Your task to perform on an android device: Open Google Image 0: 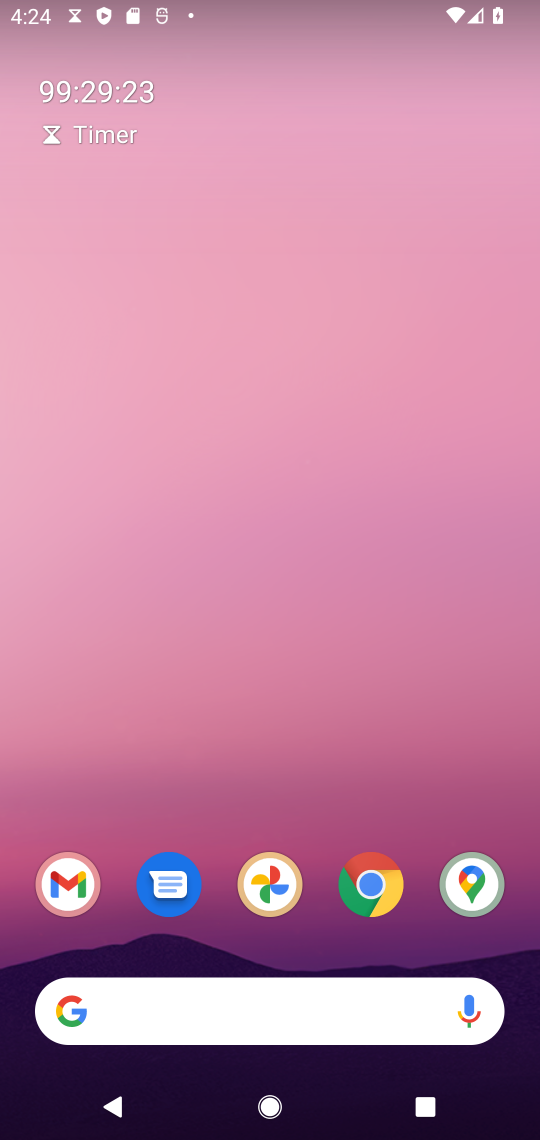
Step 0: drag from (159, 921) to (208, 225)
Your task to perform on an android device: Open Google Image 1: 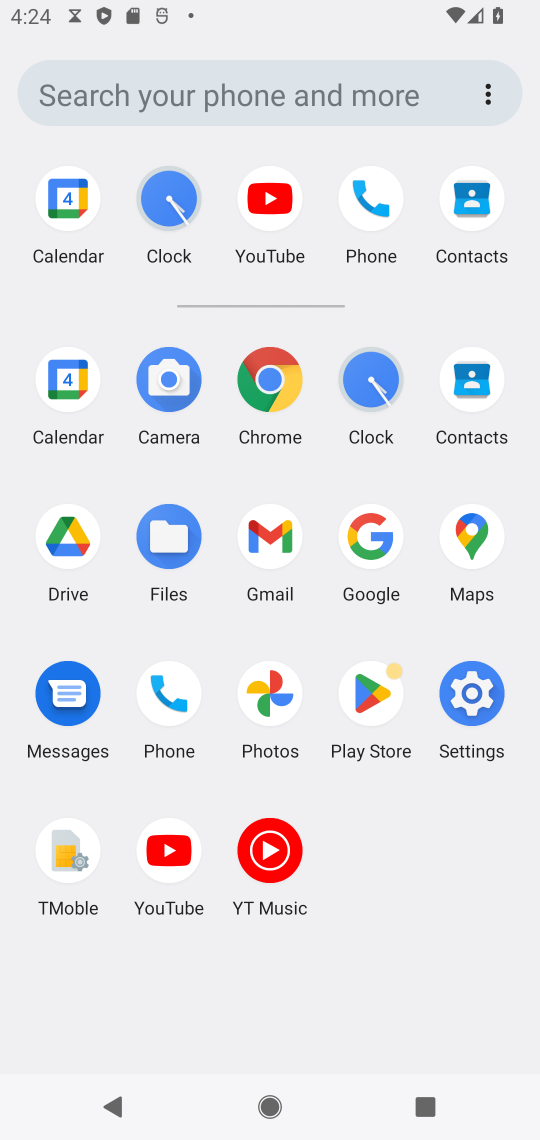
Step 1: click (363, 538)
Your task to perform on an android device: Open Google Image 2: 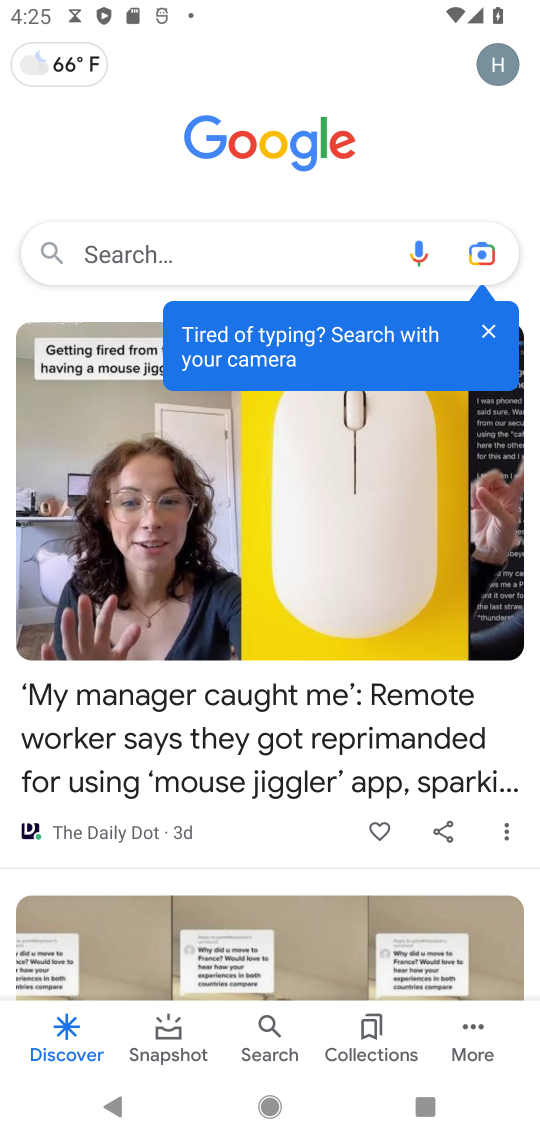
Step 2: task complete